Your task to perform on an android device: uninstall "Google Photos" Image 0: 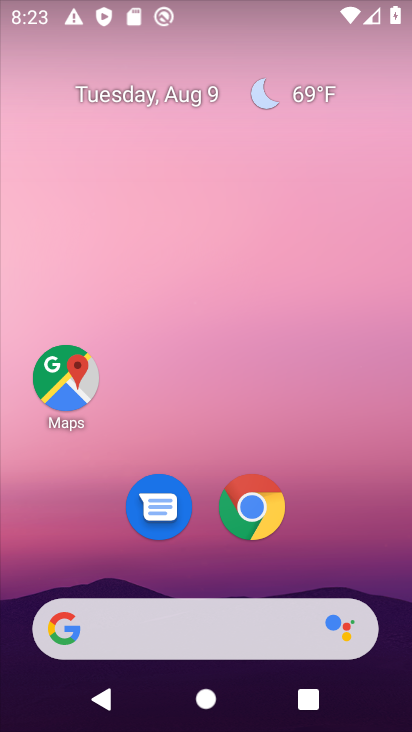
Step 0: drag from (162, 629) to (215, 169)
Your task to perform on an android device: uninstall "Google Photos" Image 1: 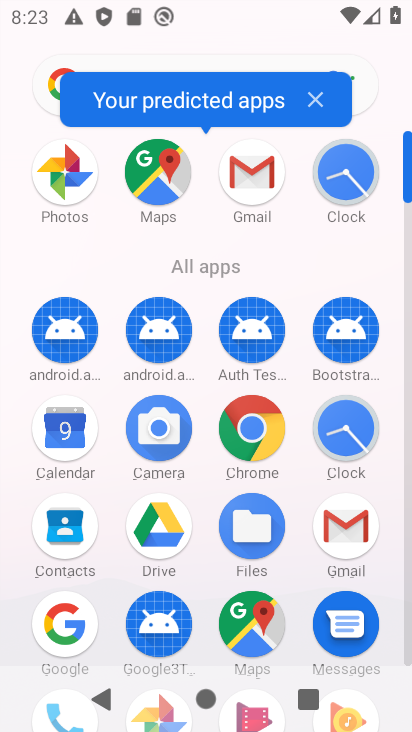
Step 1: drag from (202, 508) to (238, 287)
Your task to perform on an android device: uninstall "Google Photos" Image 2: 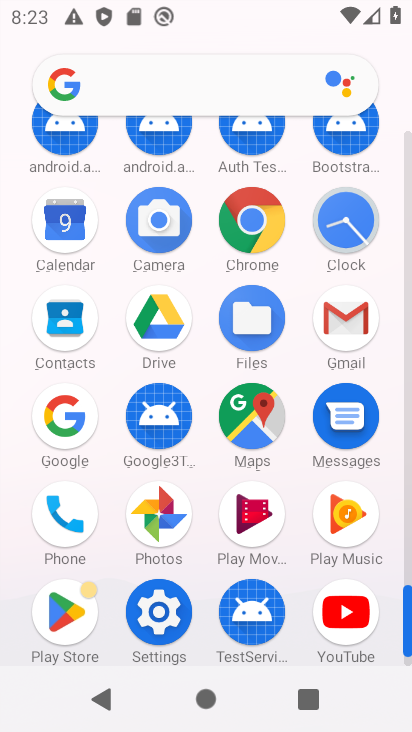
Step 2: click (67, 612)
Your task to perform on an android device: uninstall "Google Photos" Image 3: 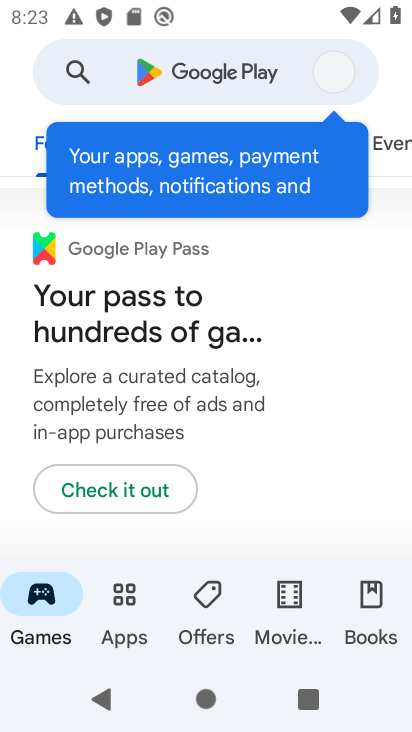
Step 3: click (256, 73)
Your task to perform on an android device: uninstall "Google Photos" Image 4: 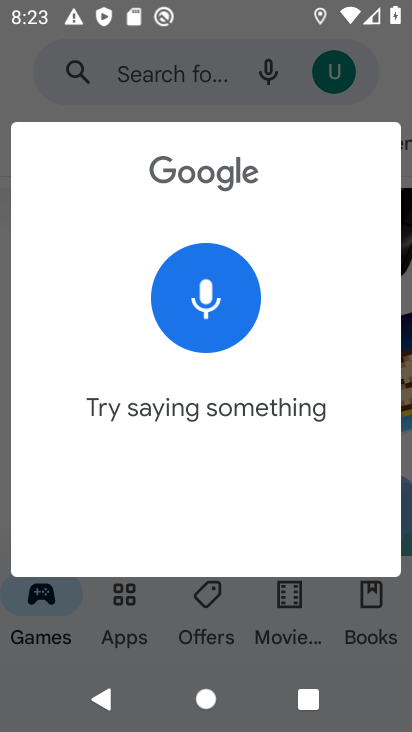
Step 4: click (190, 86)
Your task to perform on an android device: uninstall "Google Photos" Image 5: 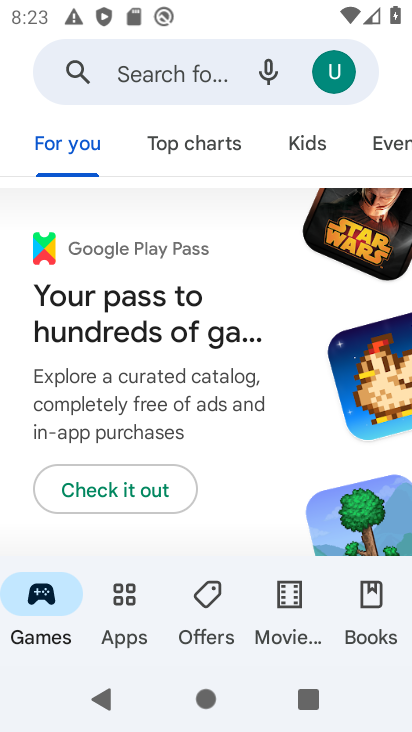
Step 5: click (196, 75)
Your task to perform on an android device: uninstall "Google Photos" Image 6: 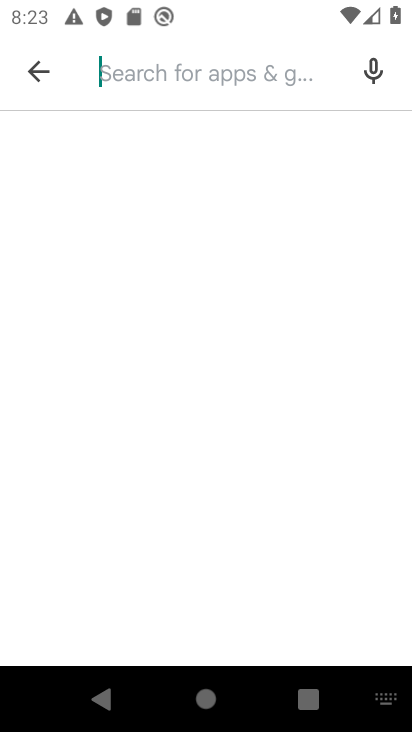
Step 6: type "google photos"
Your task to perform on an android device: uninstall "Google Photos" Image 7: 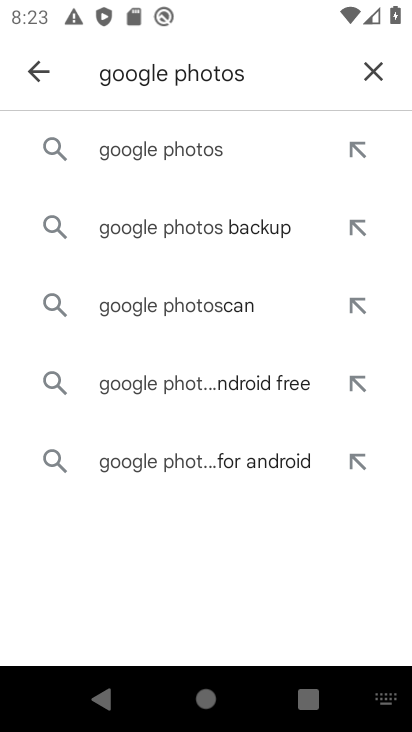
Step 7: click (164, 145)
Your task to perform on an android device: uninstall "Google Photos" Image 8: 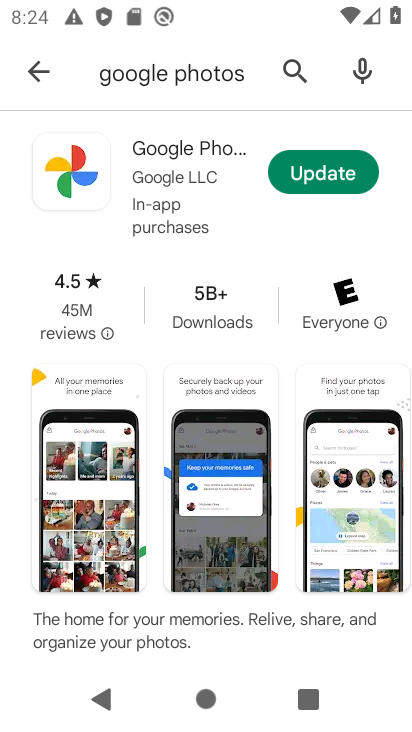
Step 8: click (198, 153)
Your task to perform on an android device: uninstall "Google Photos" Image 9: 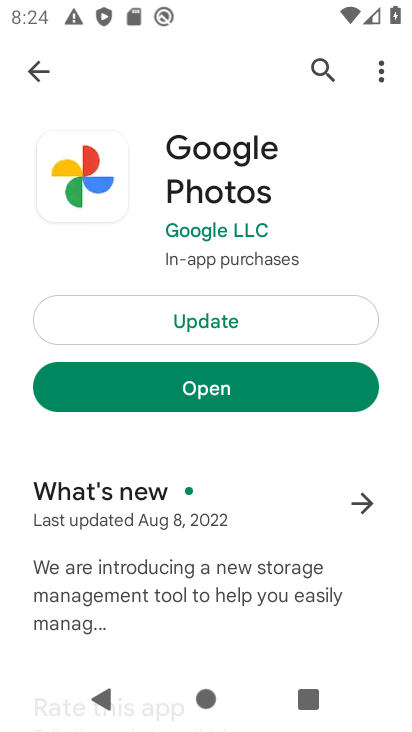
Step 9: click (205, 313)
Your task to perform on an android device: uninstall "Google Photos" Image 10: 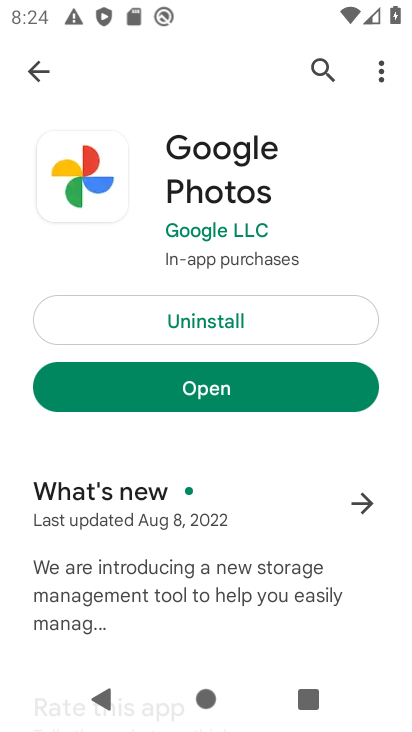
Step 10: click (205, 318)
Your task to perform on an android device: uninstall "Google Photos" Image 11: 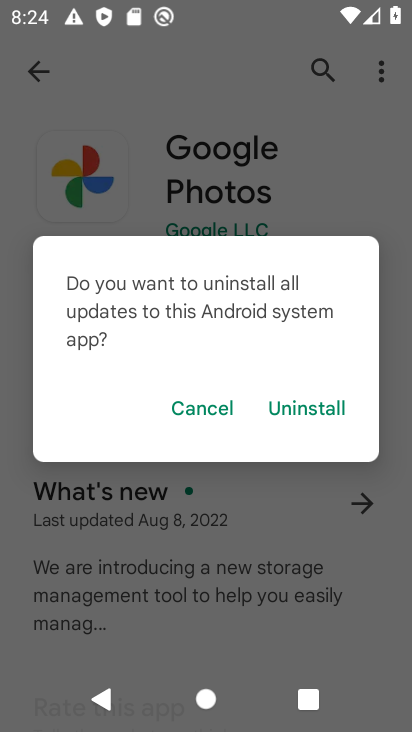
Step 11: click (300, 411)
Your task to perform on an android device: uninstall "Google Photos" Image 12: 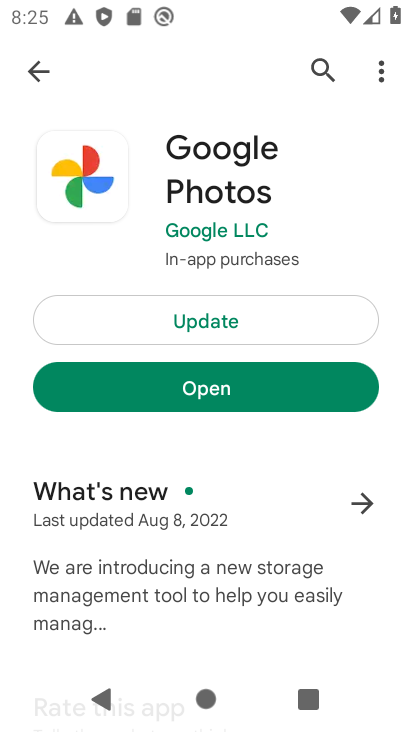
Step 12: task complete